Your task to perform on an android device: Open Wikipedia Image 0: 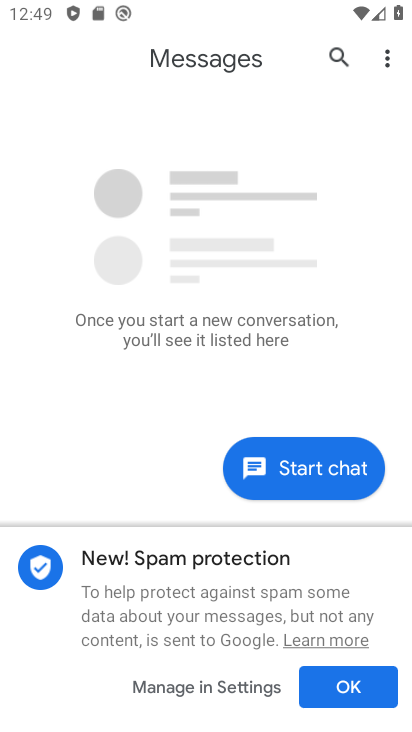
Step 0: press home button
Your task to perform on an android device: Open Wikipedia Image 1: 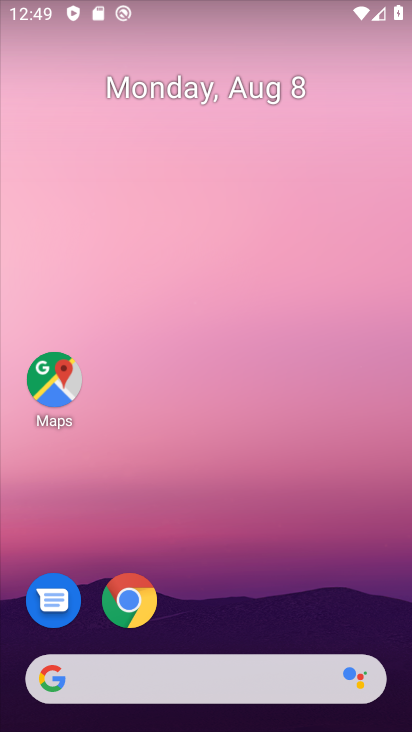
Step 1: click (135, 594)
Your task to perform on an android device: Open Wikipedia Image 2: 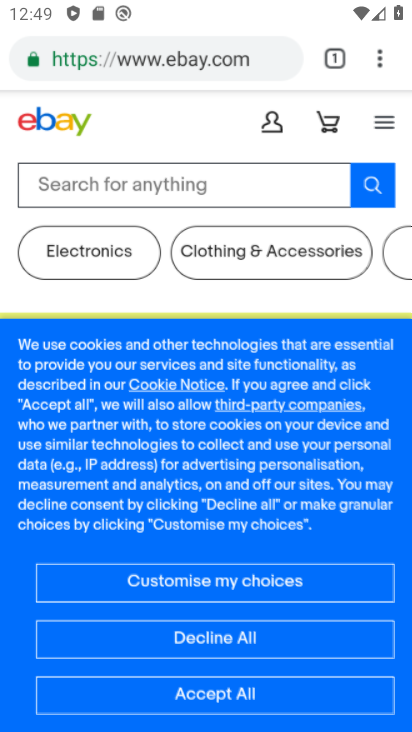
Step 2: click (145, 49)
Your task to perform on an android device: Open Wikipedia Image 3: 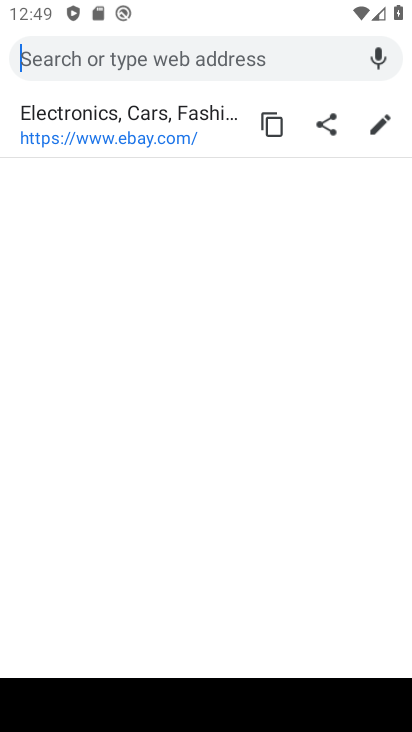
Step 3: type "Wikipedia"
Your task to perform on an android device: Open Wikipedia Image 4: 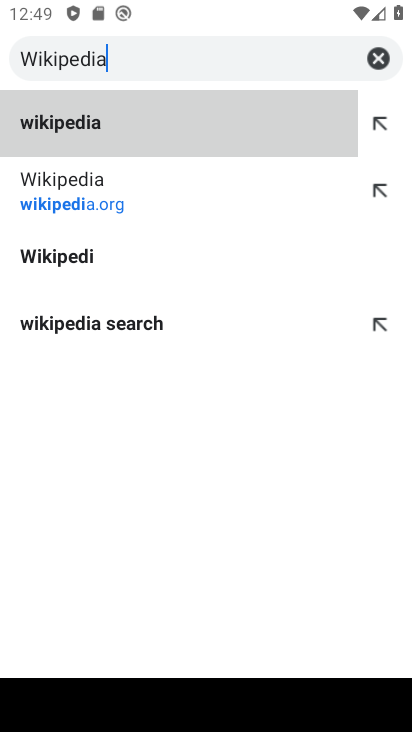
Step 4: type ""
Your task to perform on an android device: Open Wikipedia Image 5: 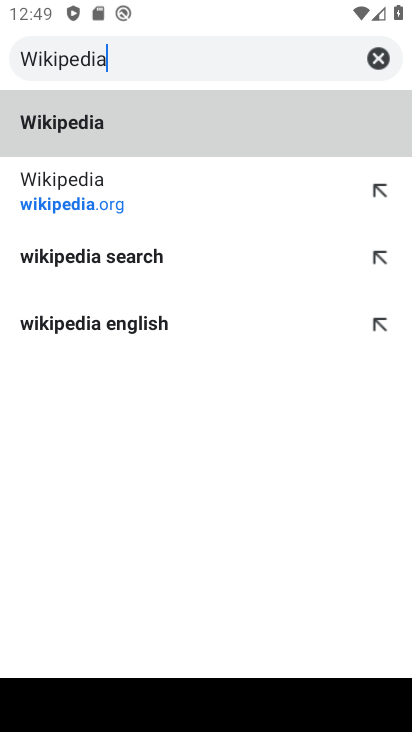
Step 5: click (120, 208)
Your task to perform on an android device: Open Wikipedia Image 6: 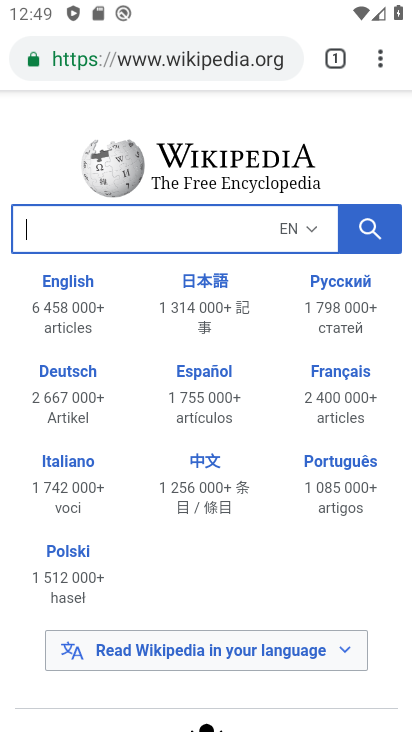
Step 6: task complete